Your task to perform on an android device: Open my contact list Image 0: 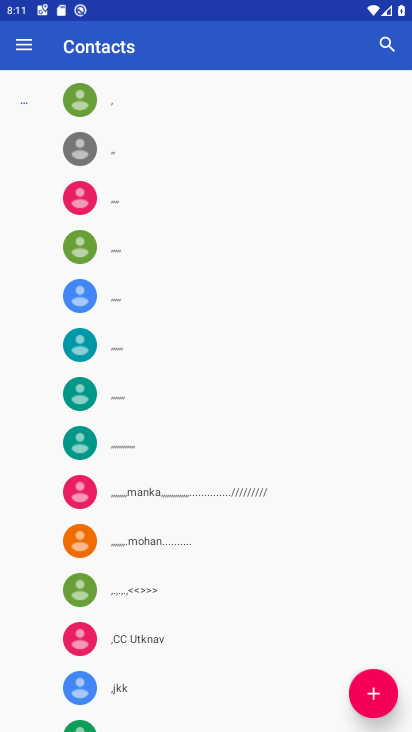
Step 0: press back button
Your task to perform on an android device: Open my contact list Image 1: 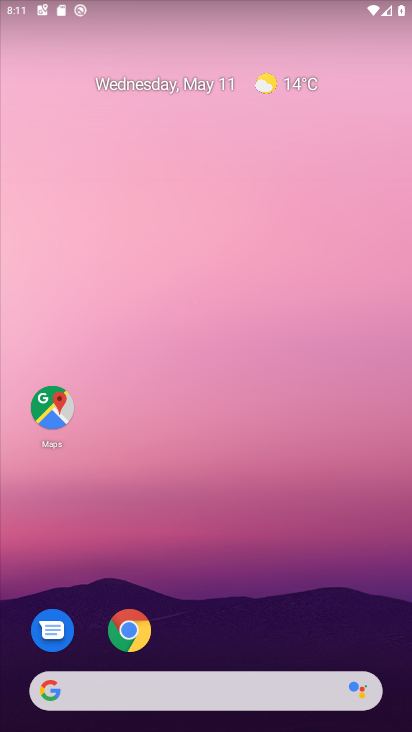
Step 1: drag from (42, 577) to (230, 180)
Your task to perform on an android device: Open my contact list Image 2: 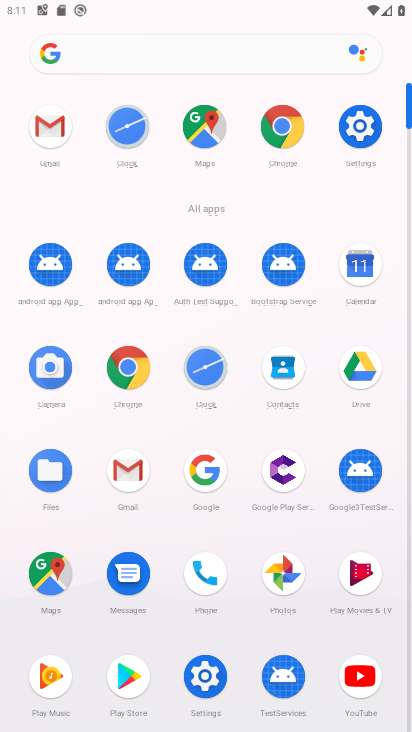
Step 2: click (206, 565)
Your task to perform on an android device: Open my contact list Image 3: 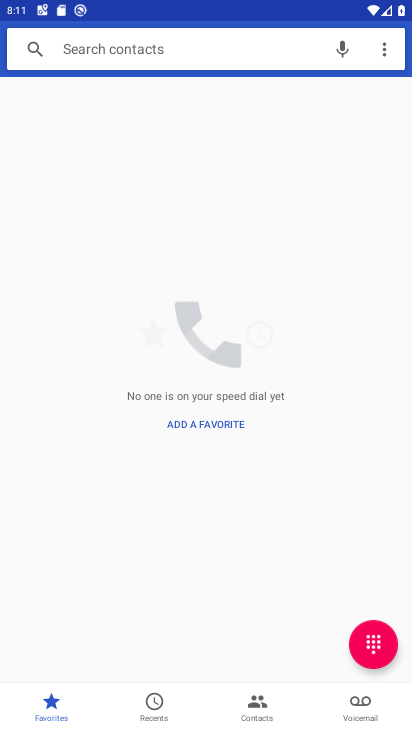
Step 3: click (255, 698)
Your task to perform on an android device: Open my contact list Image 4: 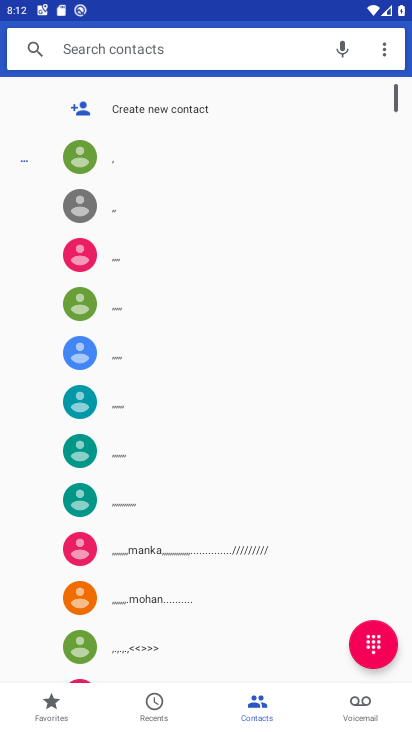
Step 4: task complete